Your task to perform on an android device: Open Chrome and go to settings Image 0: 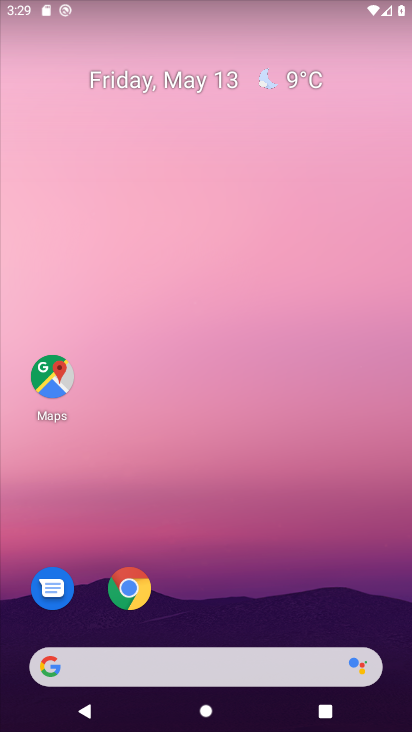
Step 0: click (138, 580)
Your task to perform on an android device: Open Chrome and go to settings Image 1: 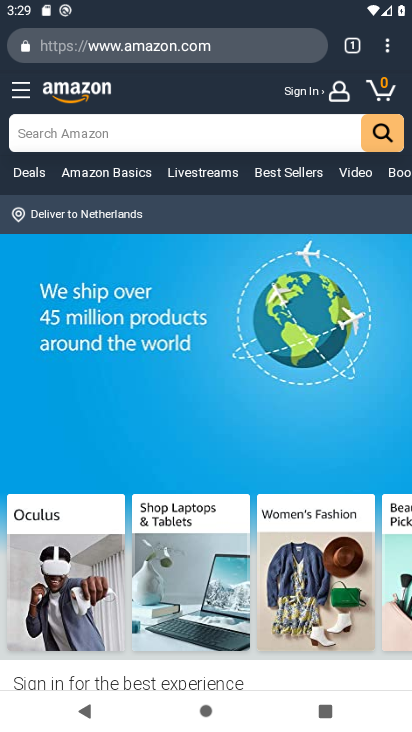
Step 1: click (388, 51)
Your task to perform on an android device: Open Chrome and go to settings Image 2: 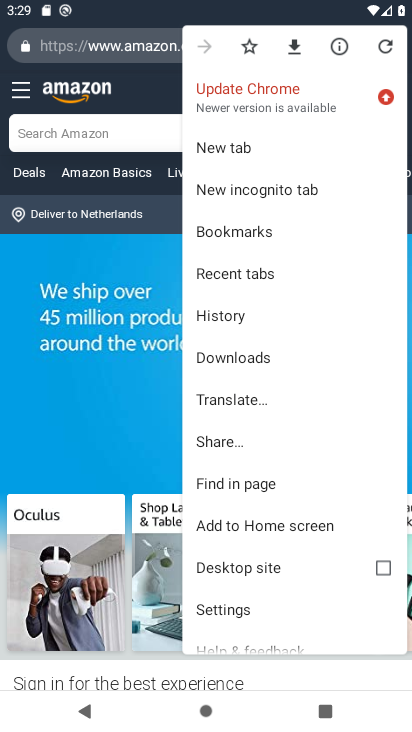
Step 2: click (257, 607)
Your task to perform on an android device: Open Chrome and go to settings Image 3: 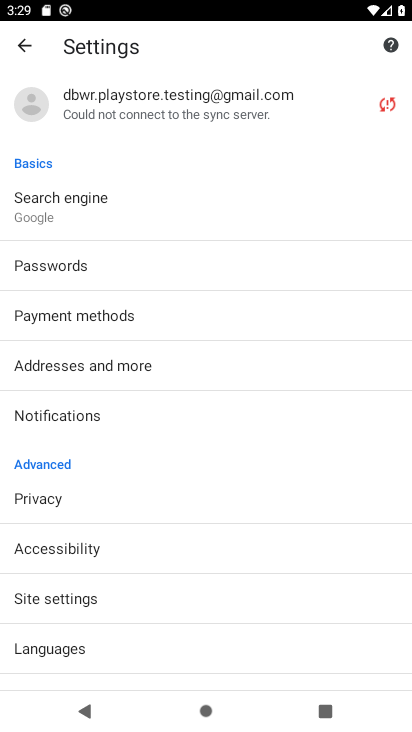
Step 3: task complete